Your task to perform on an android device: add a contact Image 0: 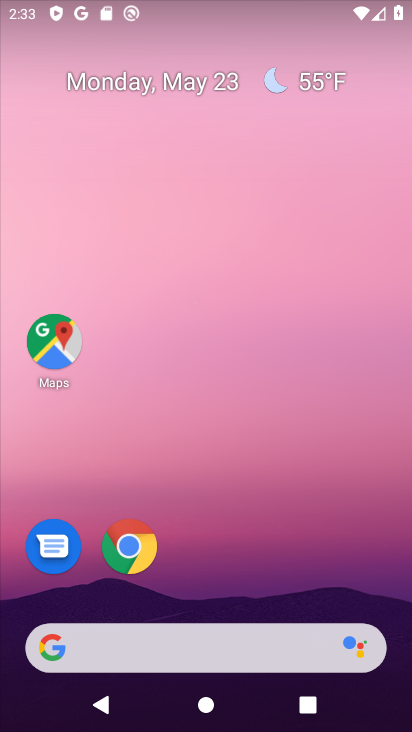
Step 0: drag from (341, 568) to (292, 153)
Your task to perform on an android device: add a contact Image 1: 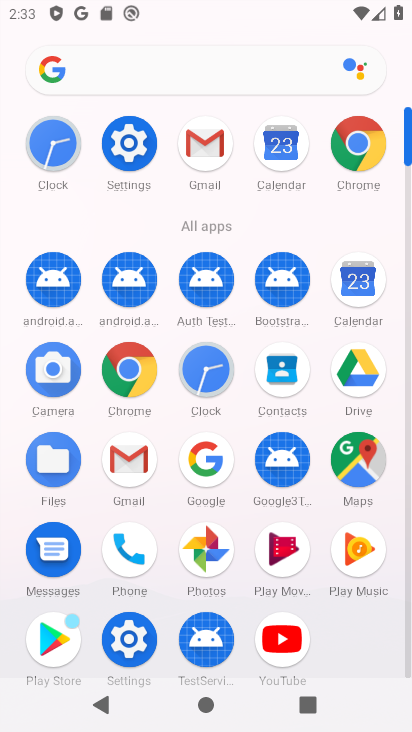
Step 1: click (279, 370)
Your task to perform on an android device: add a contact Image 2: 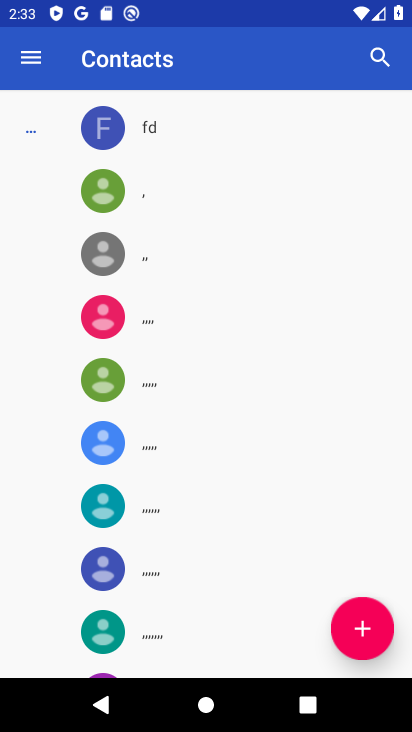
Step 2: click (358, 650)
Your task to perform on an android device: add a contact Image 3: 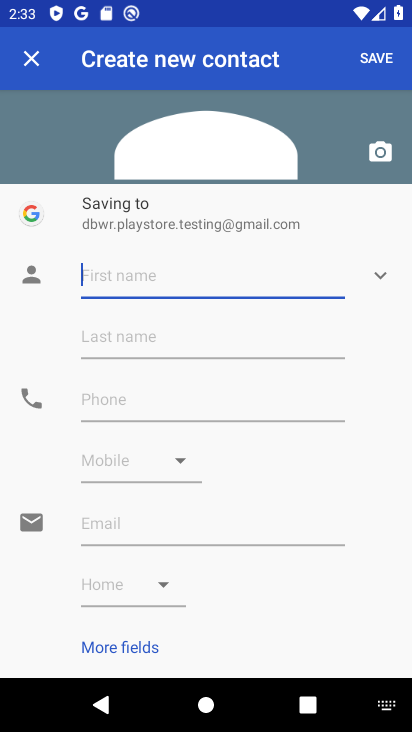
Step 3: click (213, 283)
Your task to perform on an android device: add a contact Image 4: 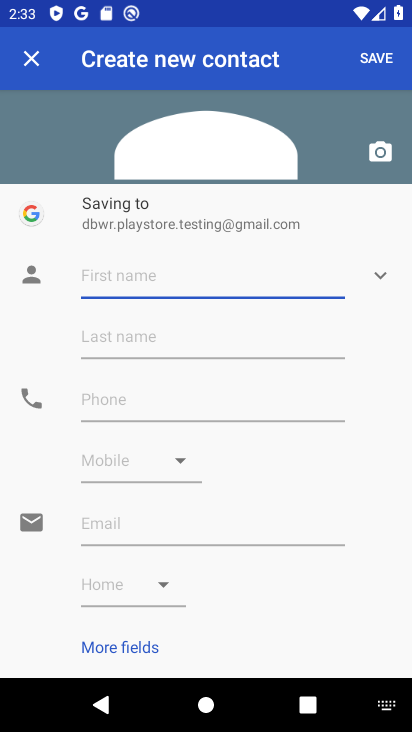
Step 4: type "239ueiej"
Your task to perform on an android device: add a contact Image 5: 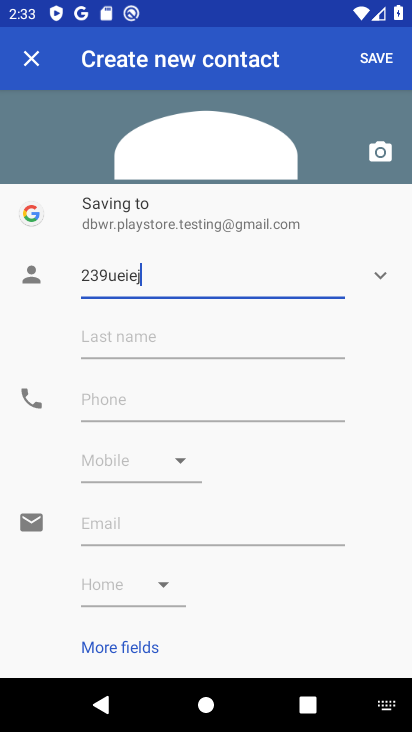
Step 5: click (190, 402)
Your task to perform on an android device: add a contact Image 6: 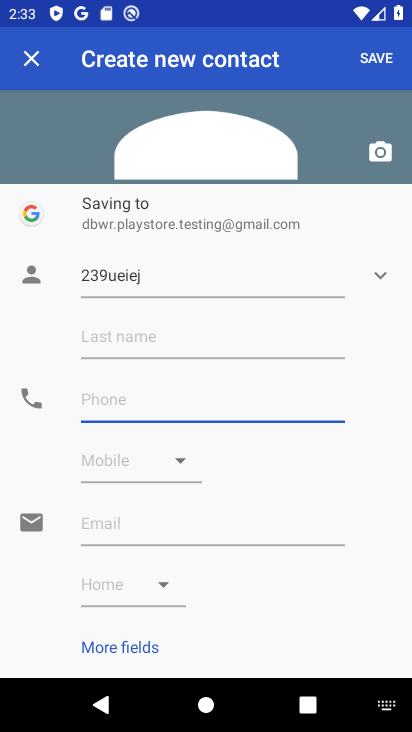
Step 6: type "389389389389"
Your task to perform on an android device: add a contact Image 7: 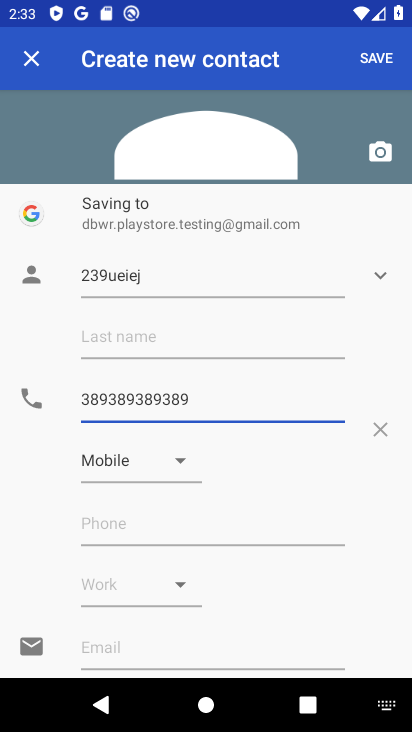
Step 7: click (382, 45)
Your task to perform on an android device: add a contact Image 8: 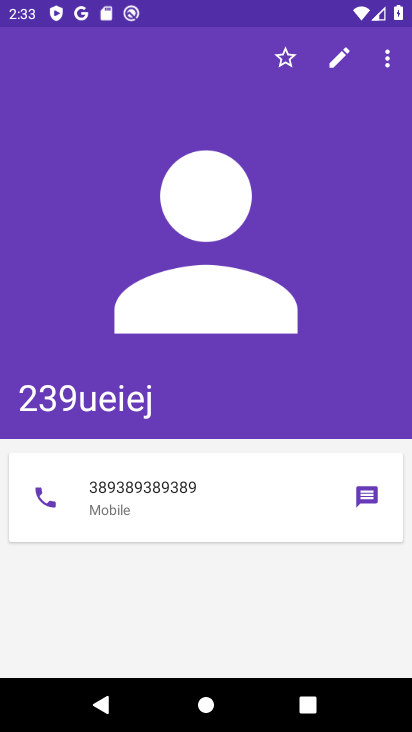
Step 8: task complete